Your task to perform on an android device: Open accessibility settings Image 0: 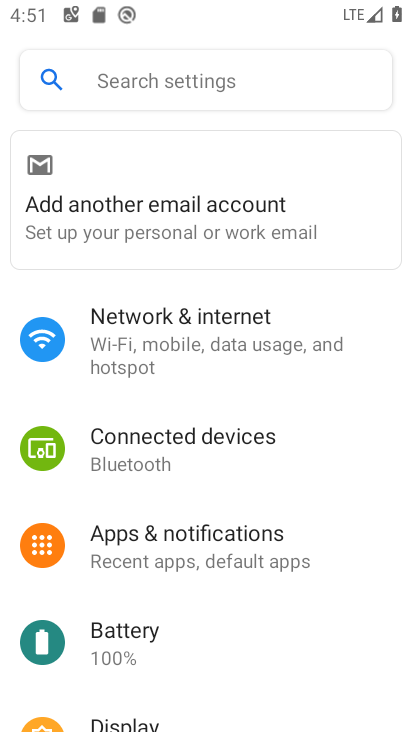
Step 0: drag from (223, 309) to (269, 110)
Your task to perform on an android device: Open accessibility settings Image 1: 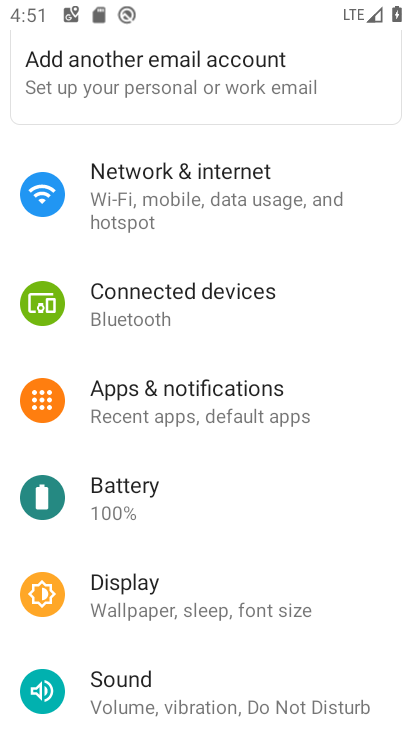
Step 1: drag from (209, 640) to (343, 116)
Your task to perform on an android device: Open accessibility settings Image 2: 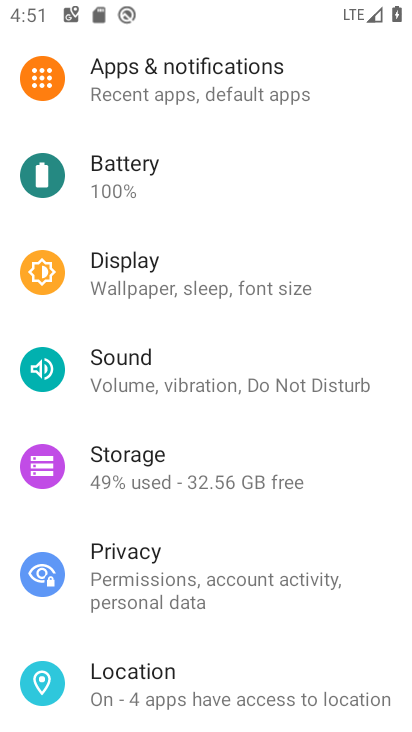
Step 2: drag from (227, 575) to (309, 179)
Your task to perform on an android device: Open accessibility settings Image 3: 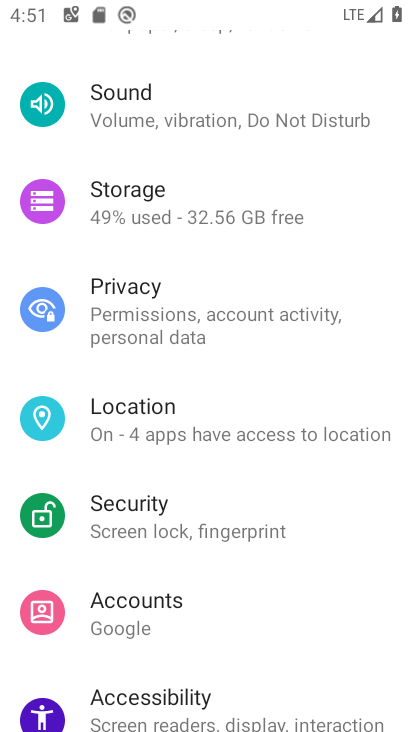
Step 3: click (159, 697)
Your task to perform on an android device: Open accessibility settings Image 4: 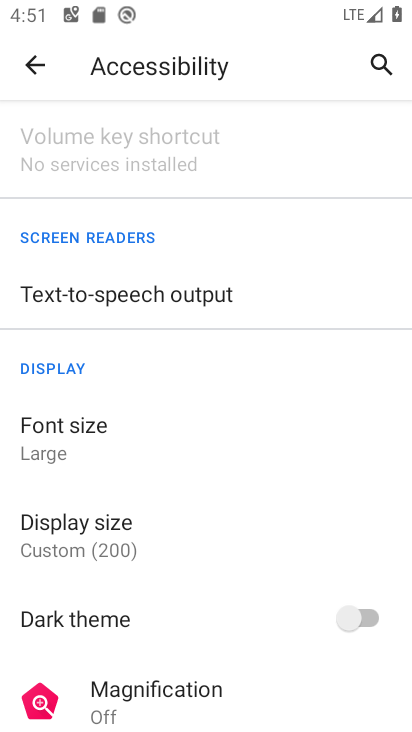
Step 4: task complete